Your task to perform on an android device: What's the weather going to be tomorrow? Image 0: 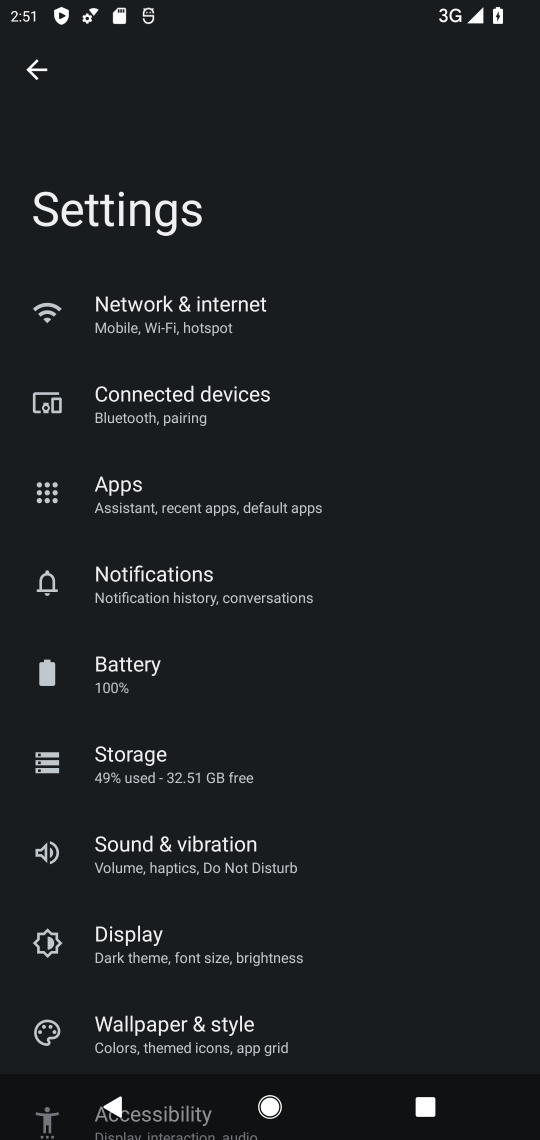
Step 0: press home button
Your task to perform on an android device: What's the weather going to be tomorrow? Image 1: 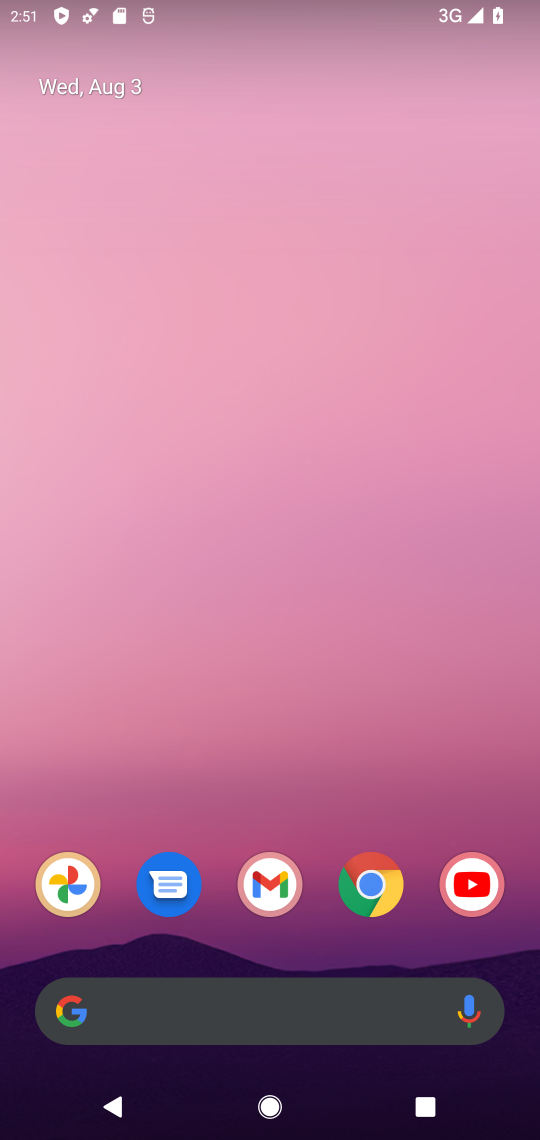
Step 1: click (252, 1018)
Your task to perform on an android device: What's the weather going to be tomorrow? Image 2: 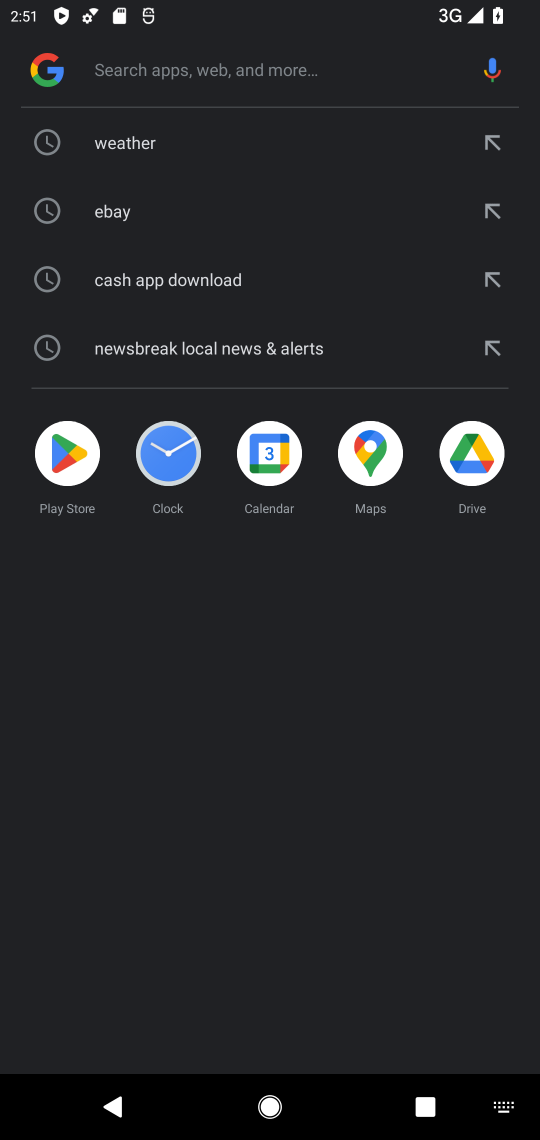
Step 2: click (249, 160)
Your task to perform on an android device: What's the weather going to be tomorrow? Image 3: 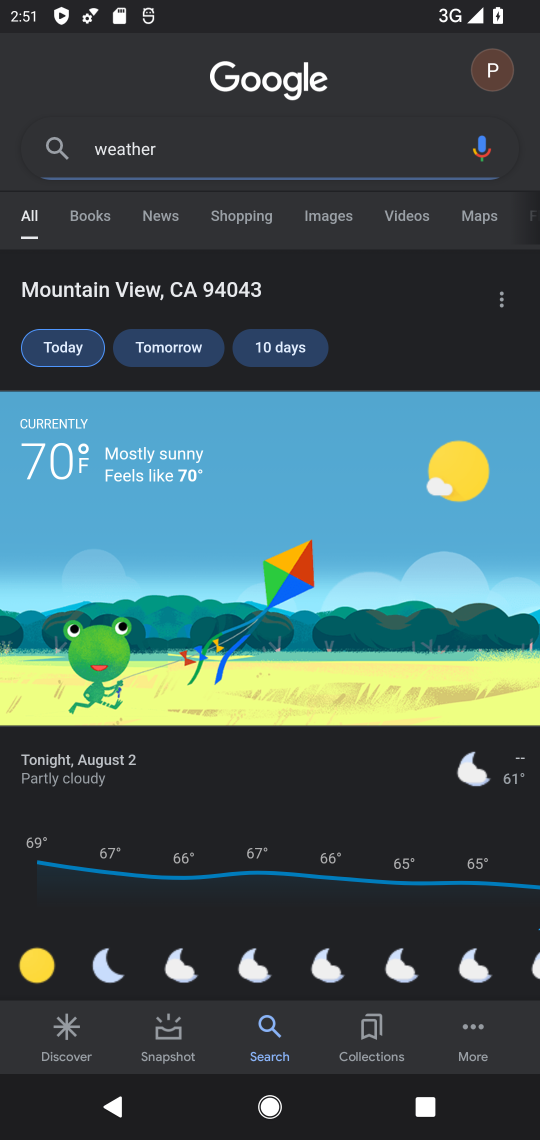
Step 3: click (189, 359)
Your task to perform on an android device: What's the weather going to be tomorrow? Image 4: 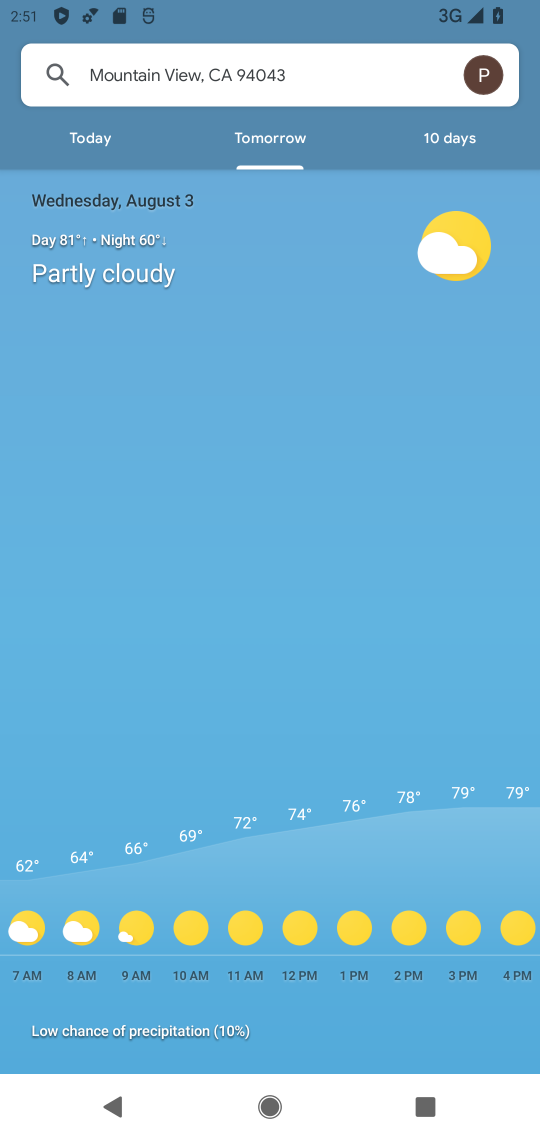
Step 4: task complete